Your task to perform on an android device: turn pop-ups on in chrome Image 0: 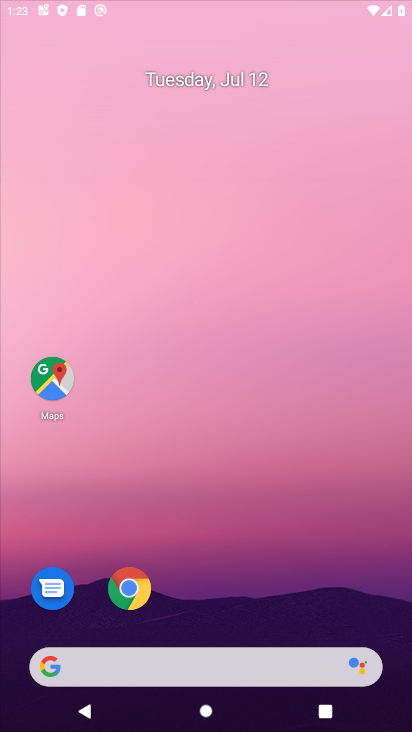
Step 0: drag from (307, 175) to (250, 268)
Your task to perform on an android device: turn pop-ups on in chrome Image 1: 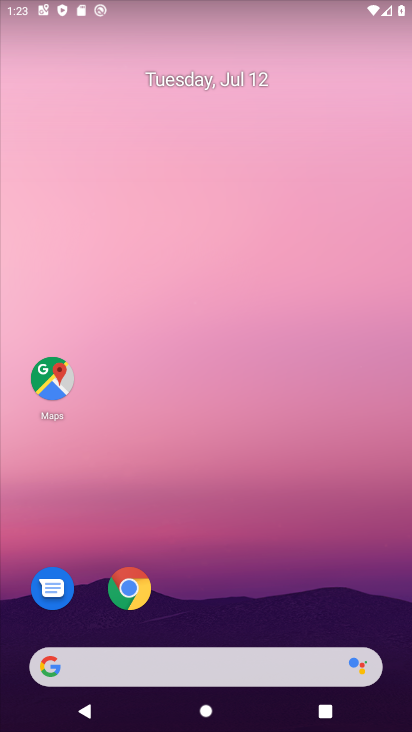
Step 1: drag from (193, 608) to (236, 279)
Your task to perform on an android device: turn pop-ups on in chrome Image 2: 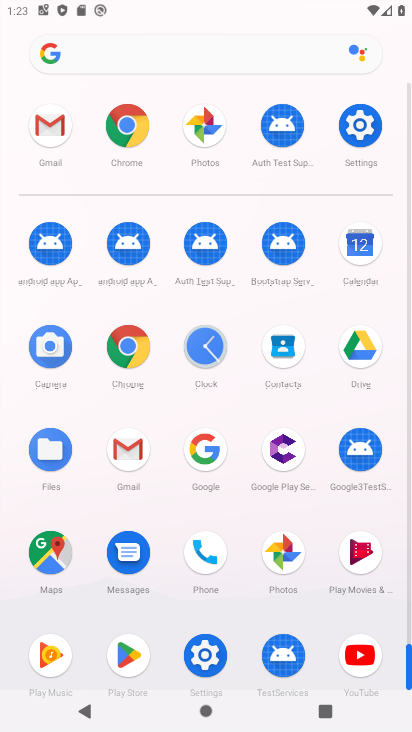
Step 2: click (126, 340)
Your task to perform on an android device: turn pop-ups on in chrome Image 3: 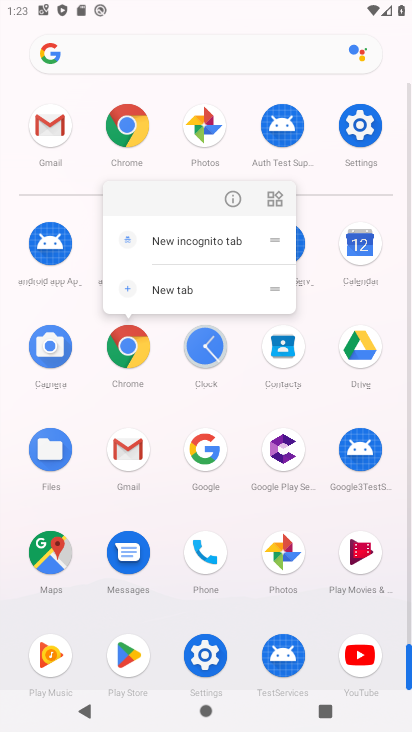
Step 3: click (240, 188)
Your task to perform on an android device: turn pop-ups on in chrome Image 4: 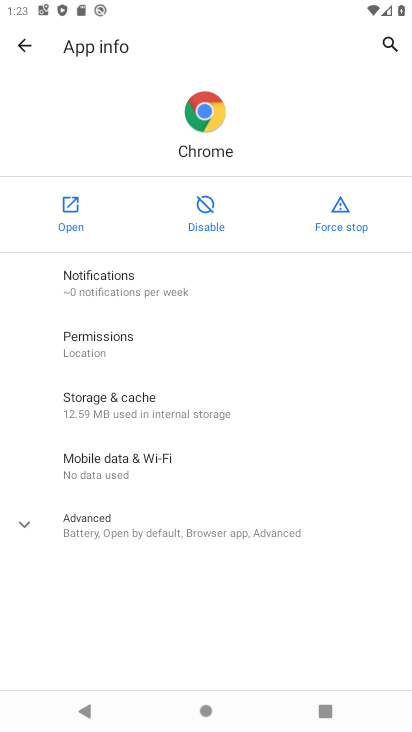
Step 4: click (54, 192)
Your task to perform on an android device: turn pop-ups on in chrome Image 5: 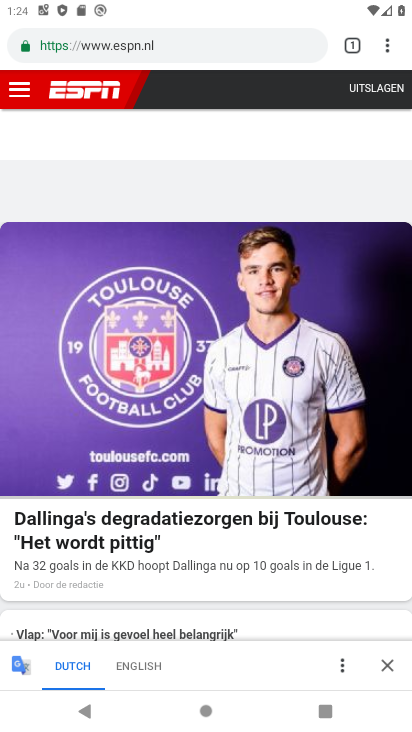
Step 5: click (381, 39)
Your task to perform on an android device: turn pop-ups on in chrome Image 6: 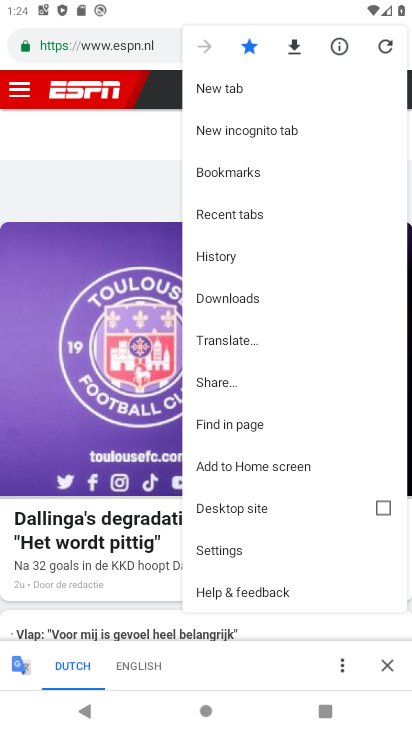
Step 6: click (233, 543)
Your task to perform on an android device: turn pop-ups on in chrome Image 7: 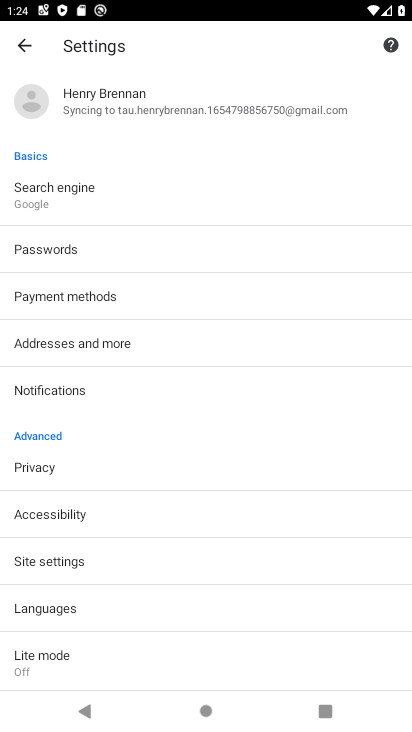
Step 7: click (63, 554)
Your task to perform on an android device: turn pop-ups on in chrome Image 8: 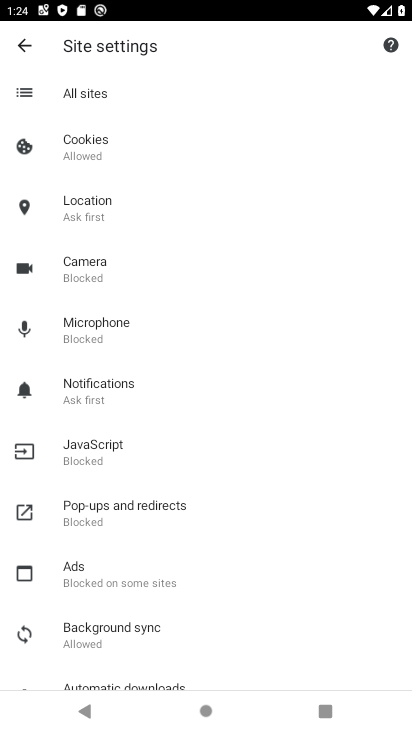
Step 8: click (49, 510)
Your task to perform on an android device: turn pop-ups on in chrome Image 9: 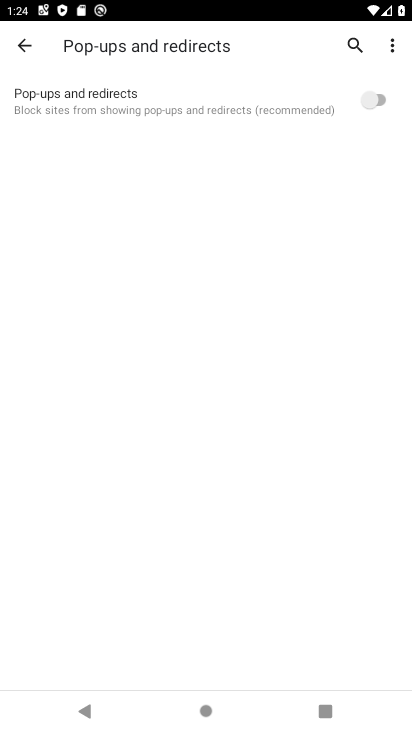
Step 9: click (246, 107)
Your task to perform on an android device: turn pop-ups on in chrome Image 10: 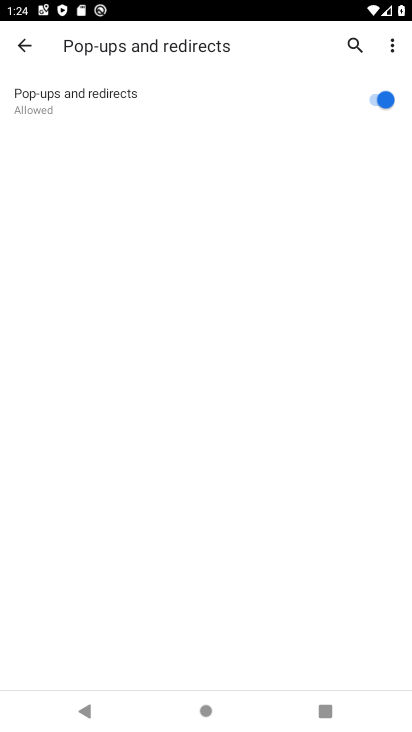
Step 10: task complete